Your task to perform on an android device: empty trash in the gmail app Image 0: 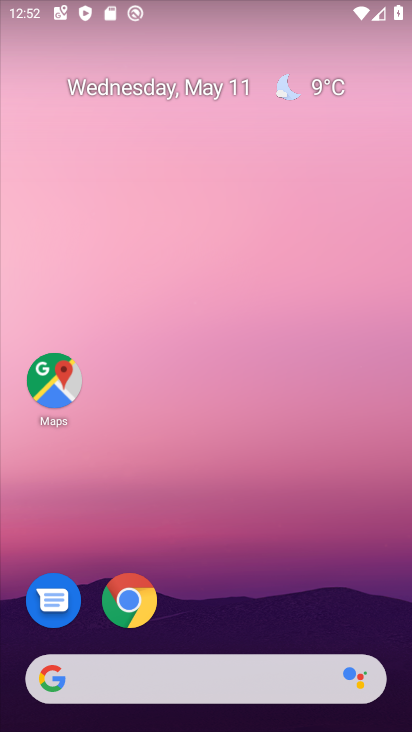
Step 0: drag from (262, 700) to (289, 237)
Your task to perform on an android device: empty trash in the gmail app Image 1: 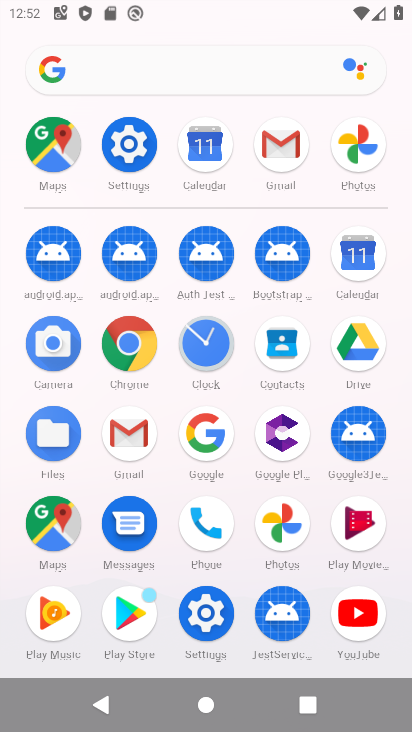
Step 1: click (268, 141)
Your task to perform on an android device: empty trash in the gmail app Image 2: 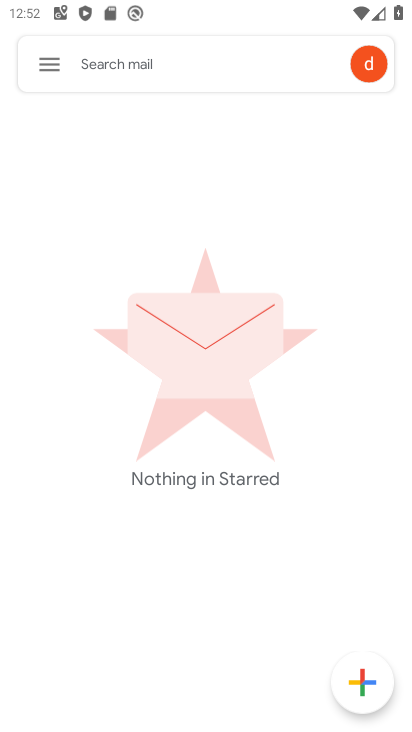
Step 2: click (54, 70)
Your task to perform on an android device: empty trash in the gmail app Image 3: 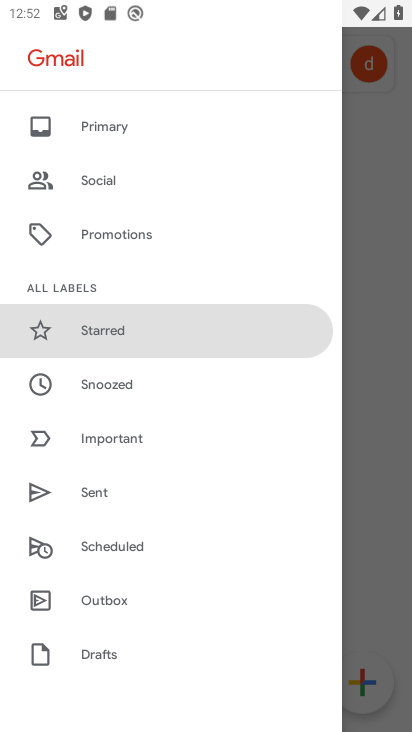
Step 3: drag from (177, 622) to (228, 242)
Your task to perform on an android device: empty trash in the gmail app Image 4: 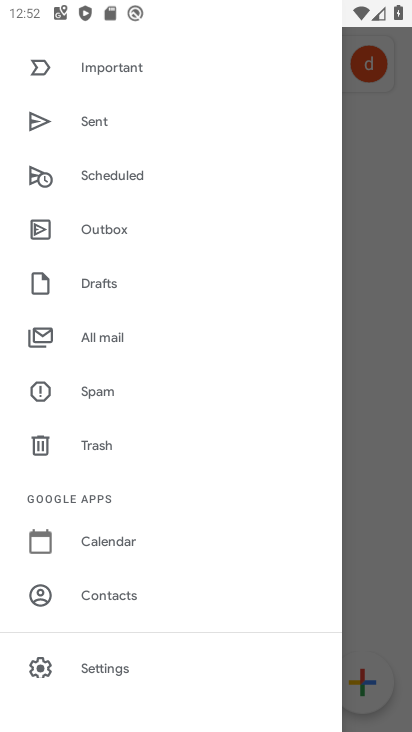
Step 4: click (141, 445)
Your task to perform on an android device: empty trash in the gmail app Image 5: 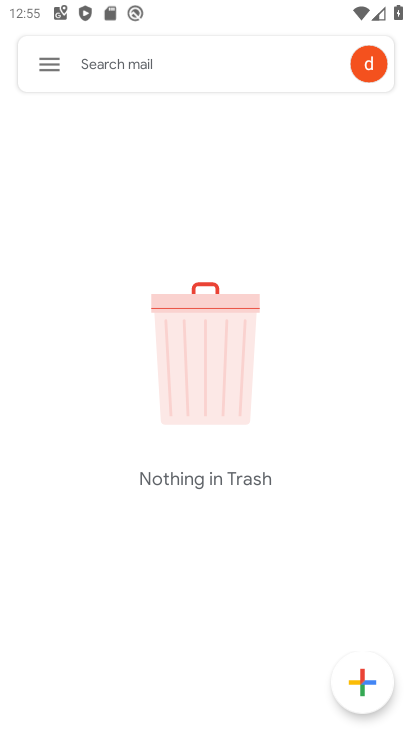
Step 5: task complete